Your task to perform on an android device: Set an alarm for 4pm Image 0: 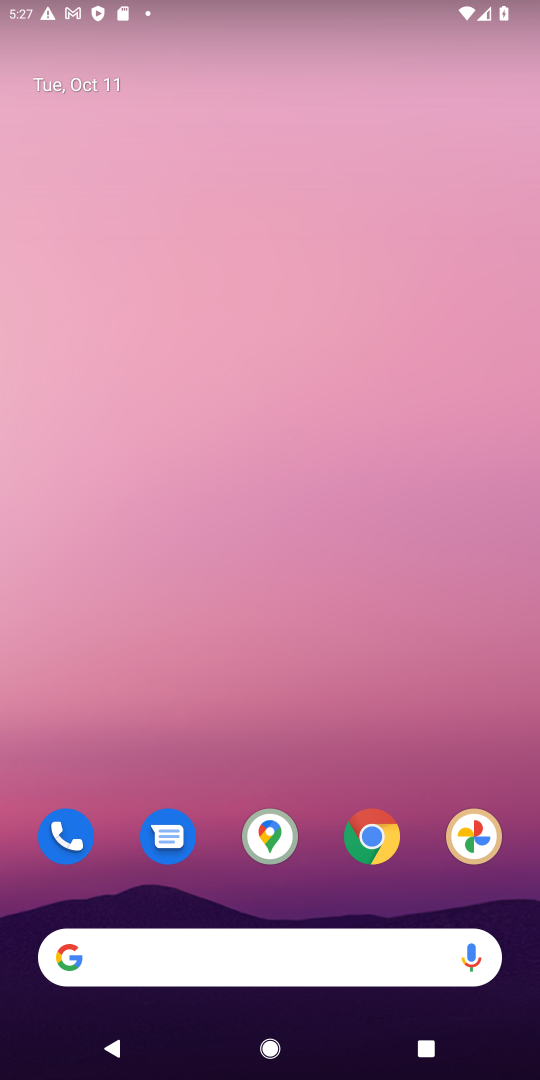
Step 0: drag from (430, 888) to (348, 116)
Your task to perform on an android device: Set an alarm for 4pm Image 1: 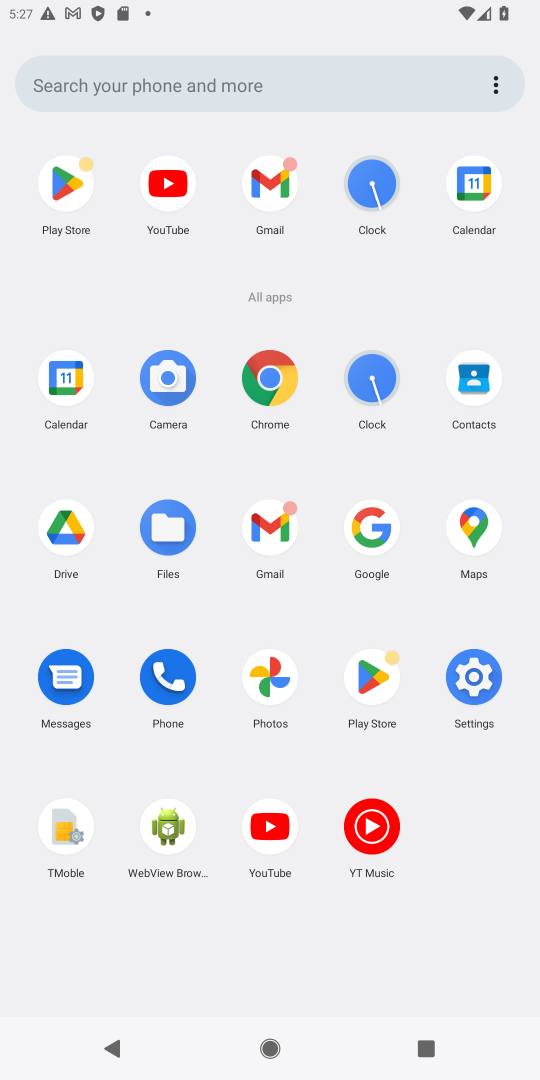
Step 1: click (373, 382)
Your task to perform on an android device: Set an alarm for 4pm Image 2: 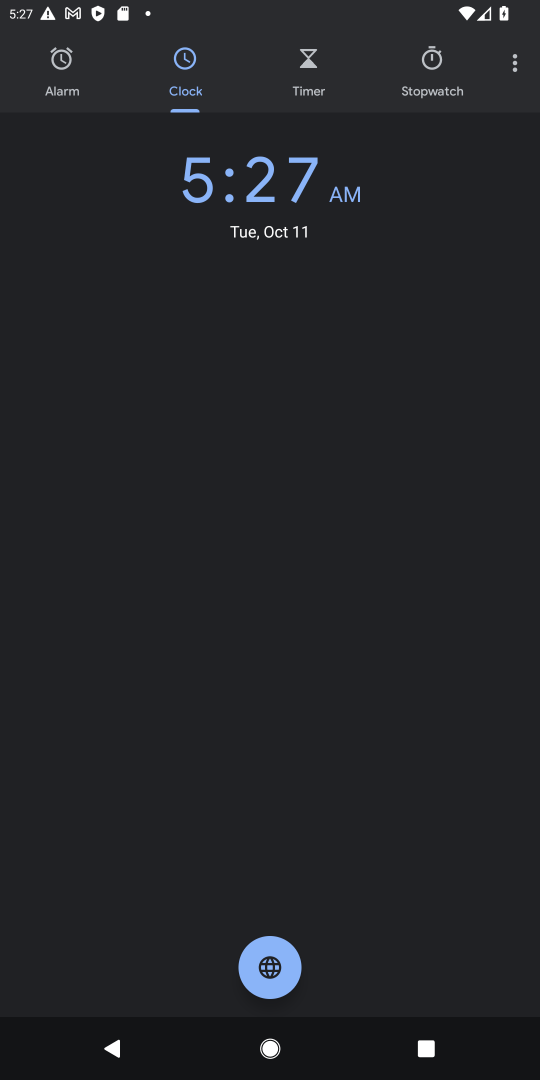
Step 2: click (65, 61)
Your task to perform on an android device: Set an alarm for 4pm Image 3: 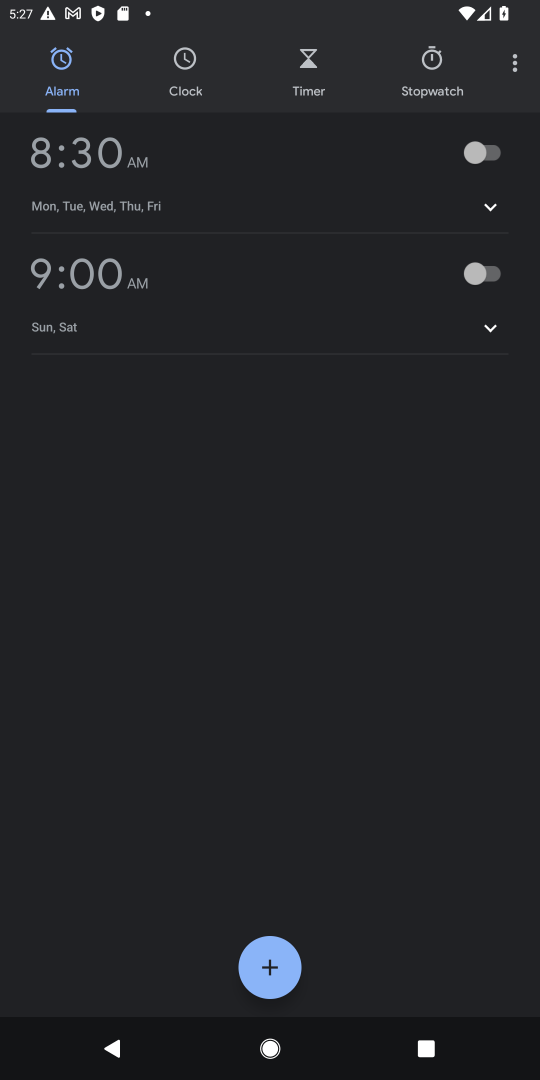
Step 3: click (77, 262)
Your task to perform on an android device: Set an alarm for 4pm Image 4: 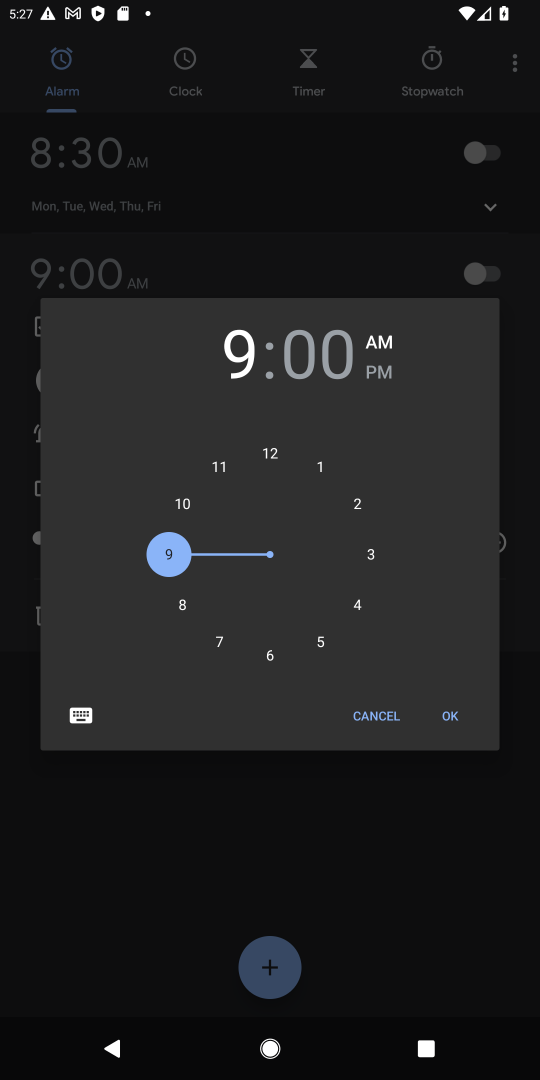
Step 4: click (359, 608)
Your task to perform on an android device: Set an alarm for 4pm Image 5: 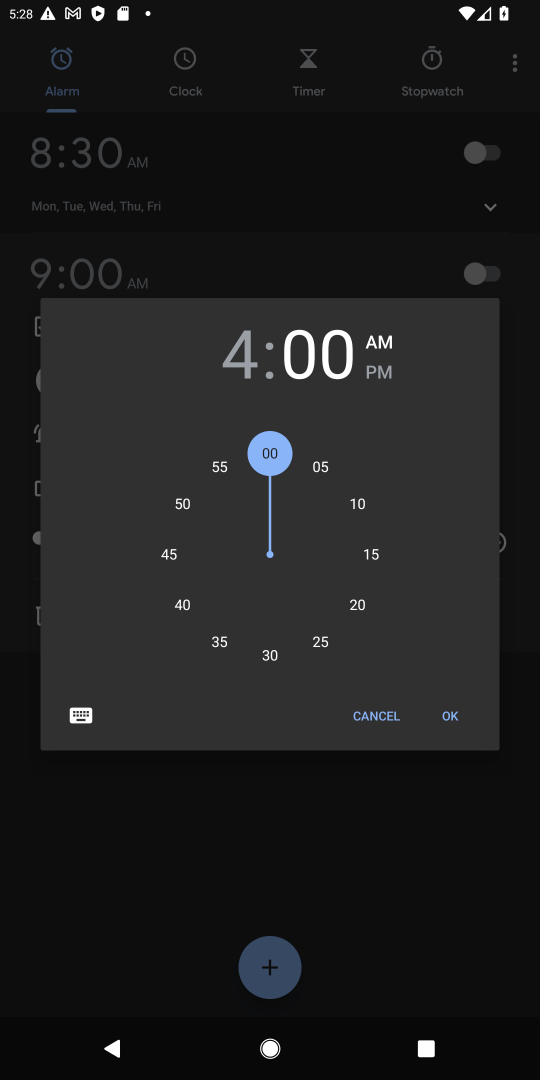
Step 5: click (373, 372)
Your task to perform on an android device: Set an alarm for 4pm Image 6: 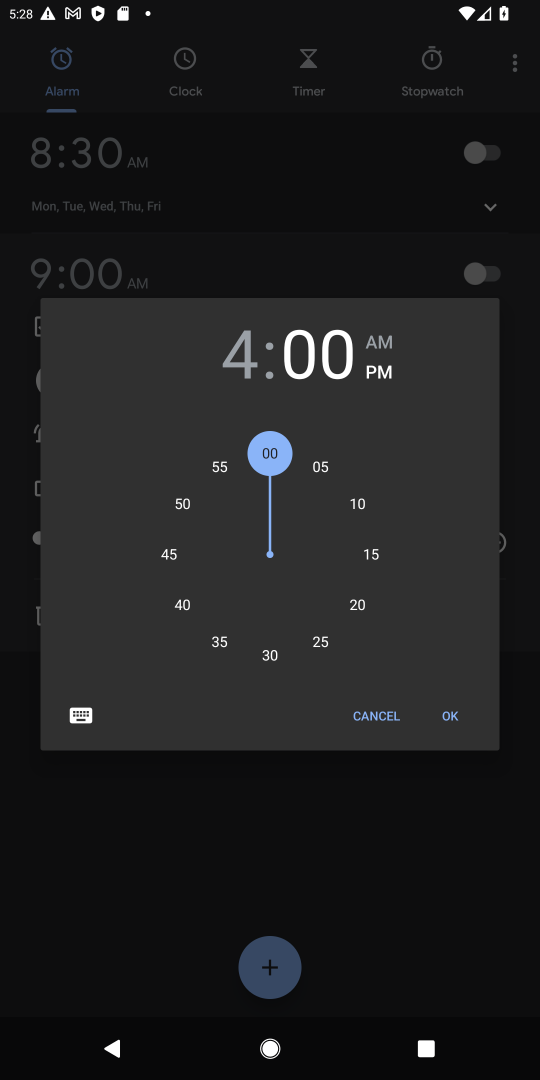
Step 6: click (451, 721)
Your task to perform on an android device: Set an alarm for 4pm Image 7: 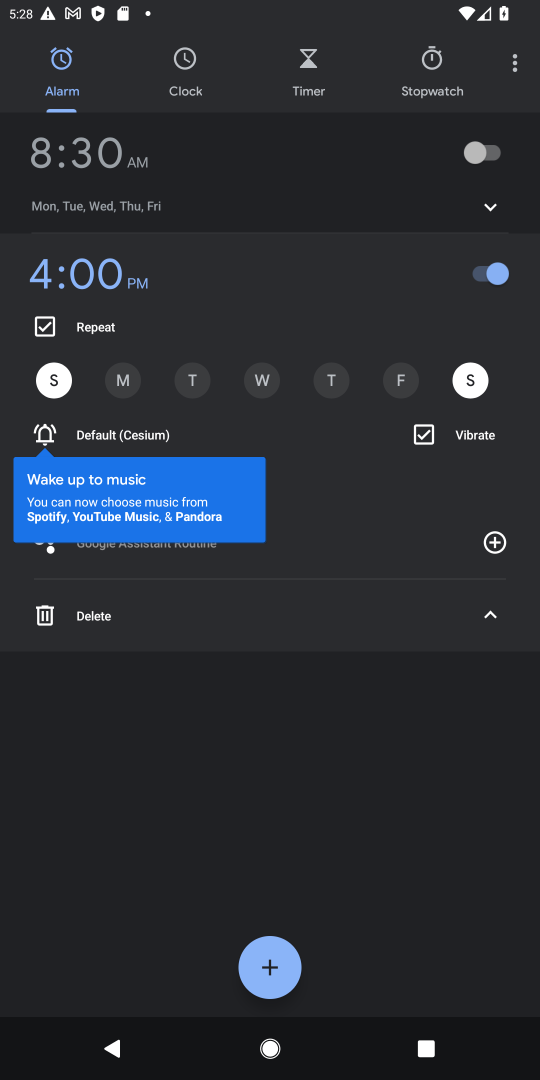
Step 7: click (126, 382)
Your task to perform on an android device: Set an alarm for 4pm Image 8: 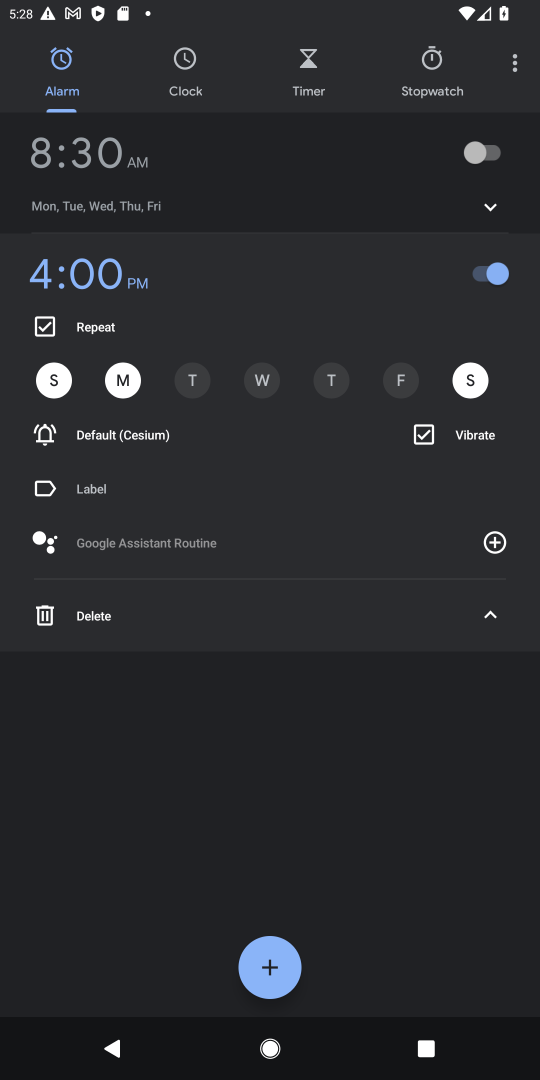
Step 8: click (185, 382)
Your task to perform on an android device: Set an alarm for 4pm Image 9: 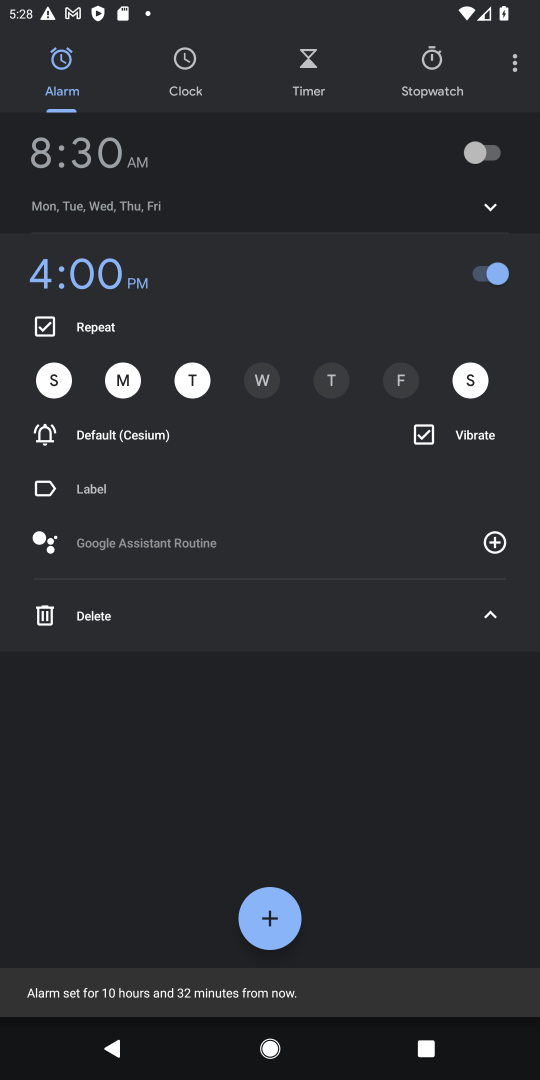
Step 9: click (262, 386)
Your task to perform on an android device: Set an alarm for 4pm Image 10: 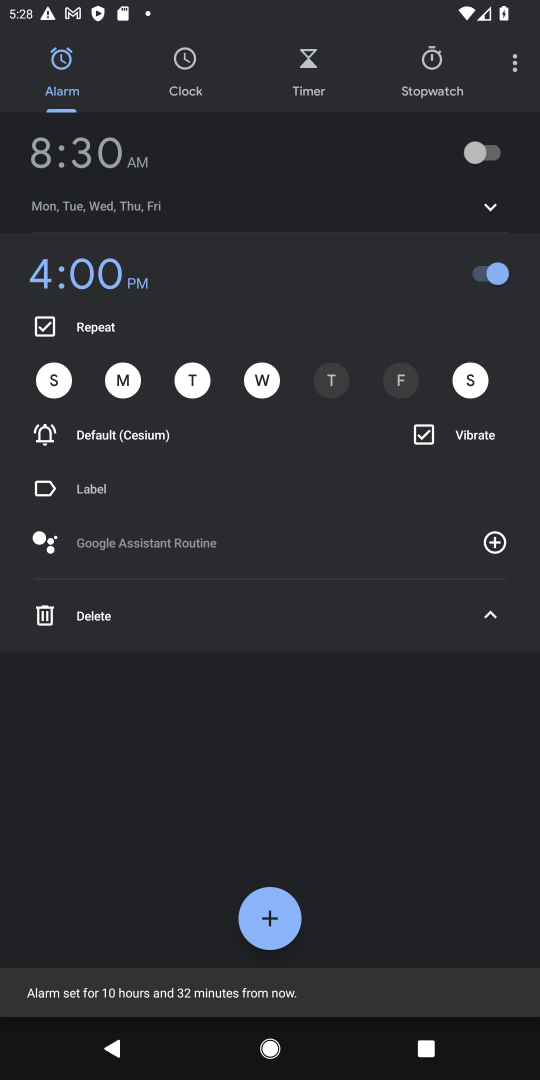
Step 10: click (330, 378)
Your task to perform on an android device: Set an alarm for 4pm Image 11: 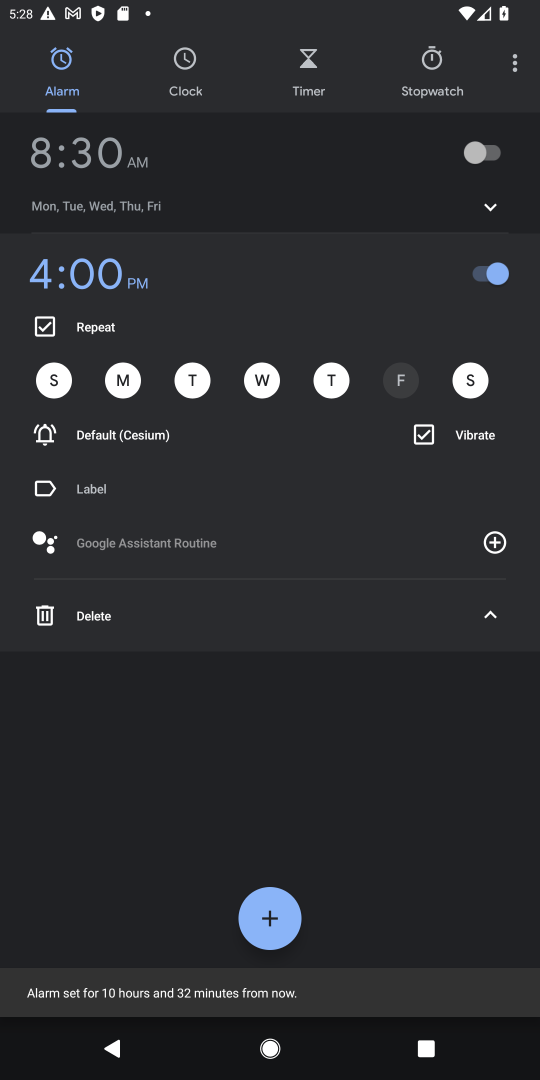
Step 11: click (389, 377)
Your task to perform on an android device: Set an alarm for 4pm Image 12: 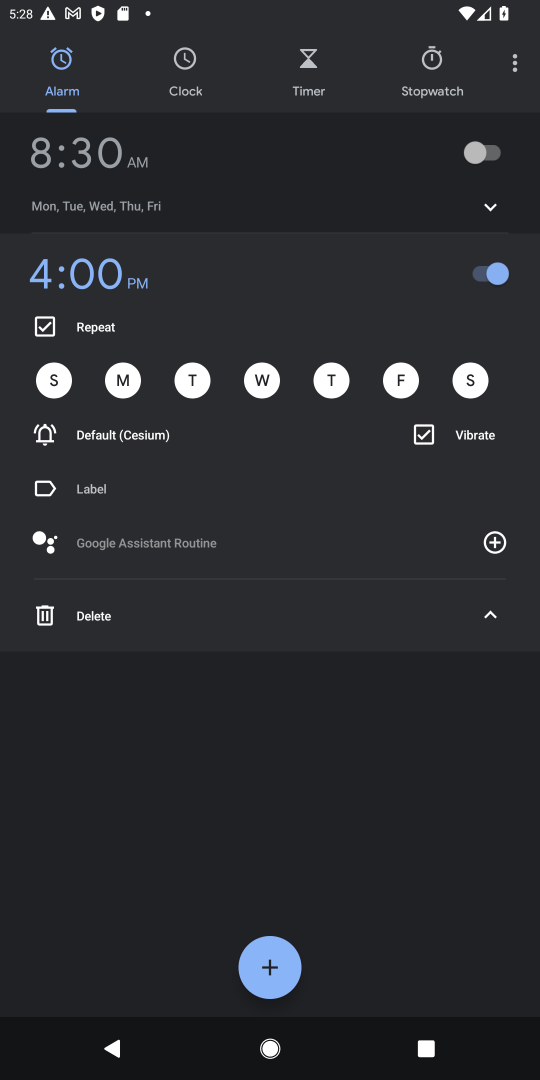
Step 12: click (55, 382)
Your task to perform on an android device: Set an alarm for 4pm Image 13: 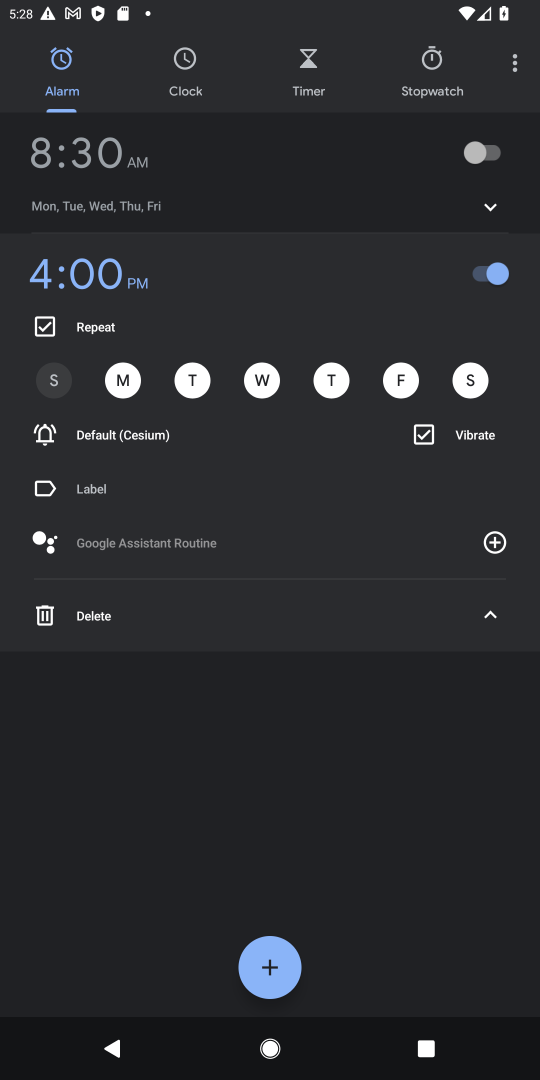
Step 13: click (488, 616)
Your task to perform on an android device: Set an alarm for 4pm Image 14: 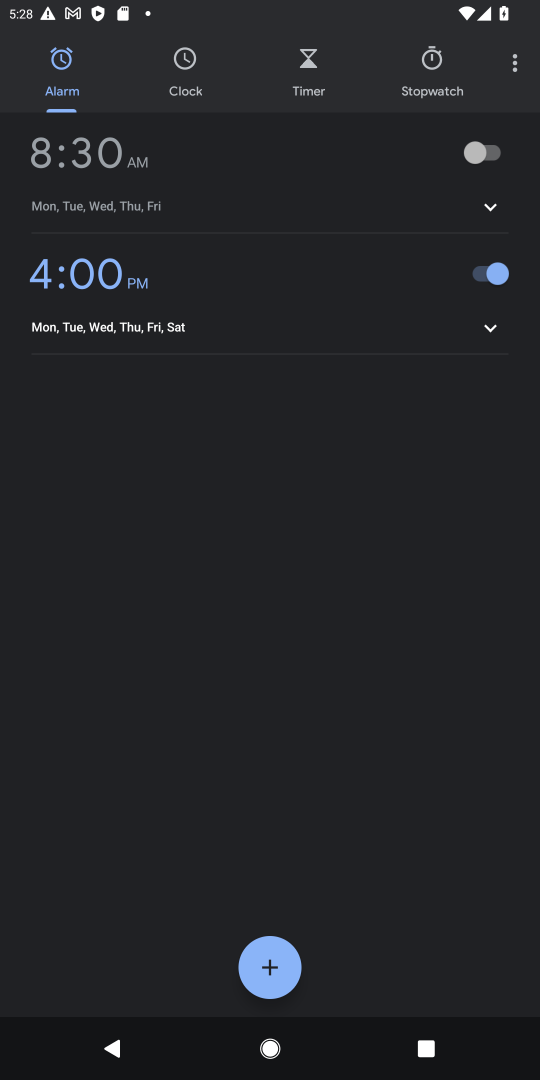
Step 14: task complete